Your task to perform on an android device: Open Youtube and go to the subscriptions tab Image 0: 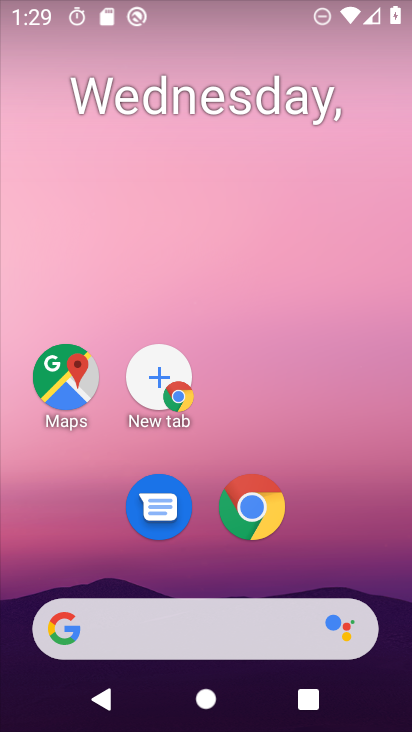
Step 0: drag from (374, 312) to (409, 247)
Your task to perform on an android device: Open Youtube and go to the subscriptions tab Image 1: 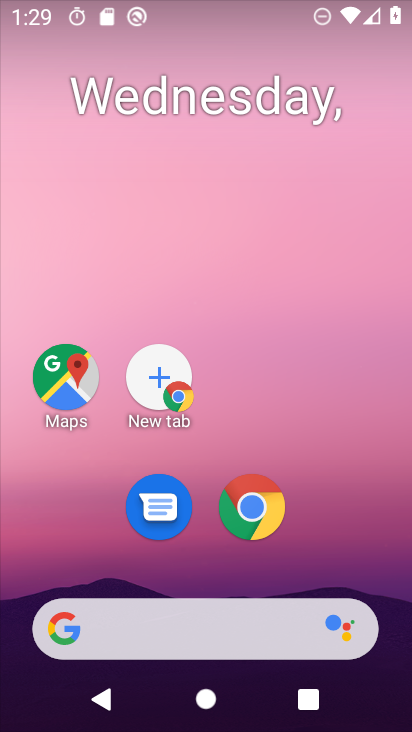
Step 1: drag from (344, 531) to (383, 32)
Your task to perform on an android device: Open Youtube and go to the subscriptions tab Image 2: 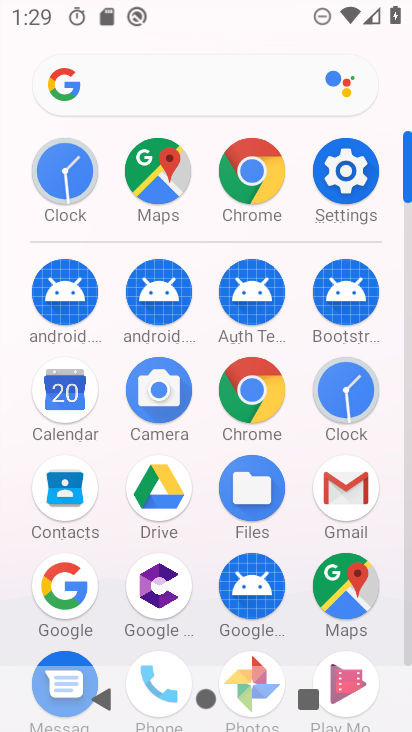
Step 2: drag from (385, 538) to (372, 123)
Your task to perform on an android device: Open Youtube and go to the subscriptions tab Image 3: 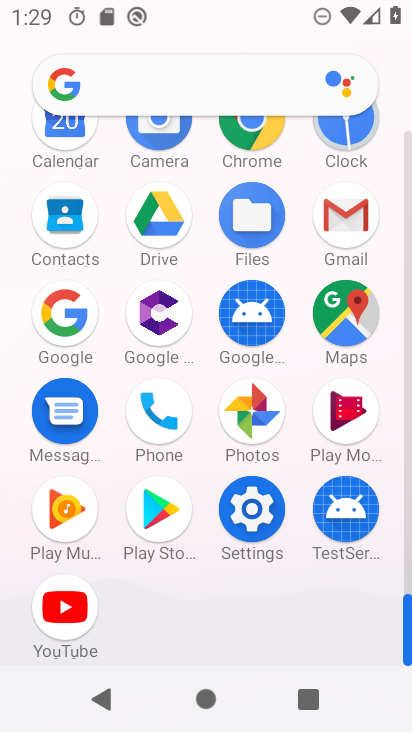
Step 3: click (75, 600)
Your task to perform on an android device: Open Youtube and go to the subscriptions tab Image 4: 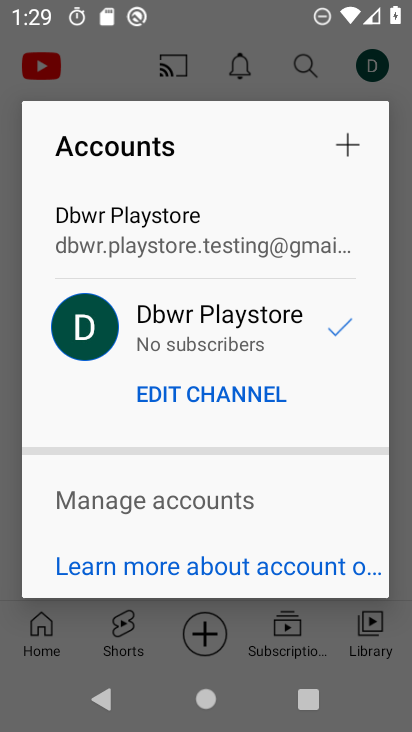
Step 4: press back button
Your task to perform on an android device: Open Youtube and go to the subscriptions tab Image 5: 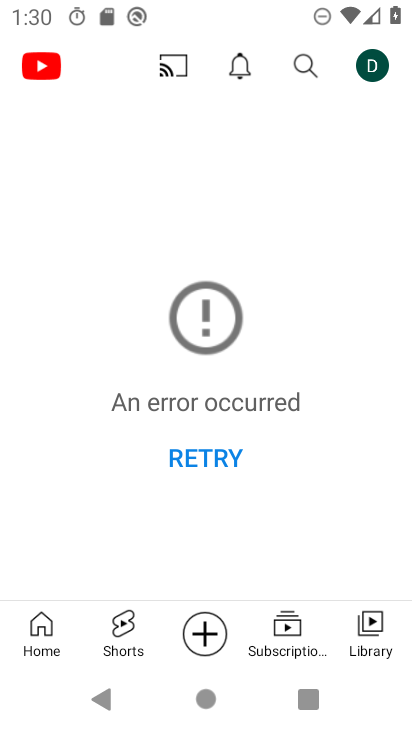
Step 5: click (273, 624)
Your task to perform on an android device: Open Youtube and go to the subscriptions tab Image 6: 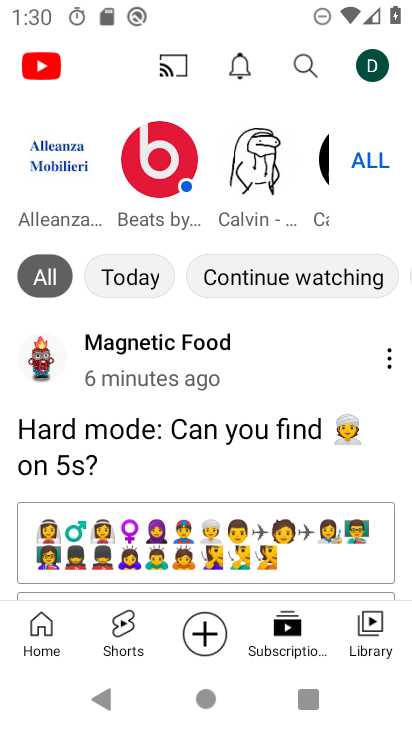
Step 6: task complete